Your task to perform on an android device: Add "logitech g pro" to the cart on costco.com Image 0: 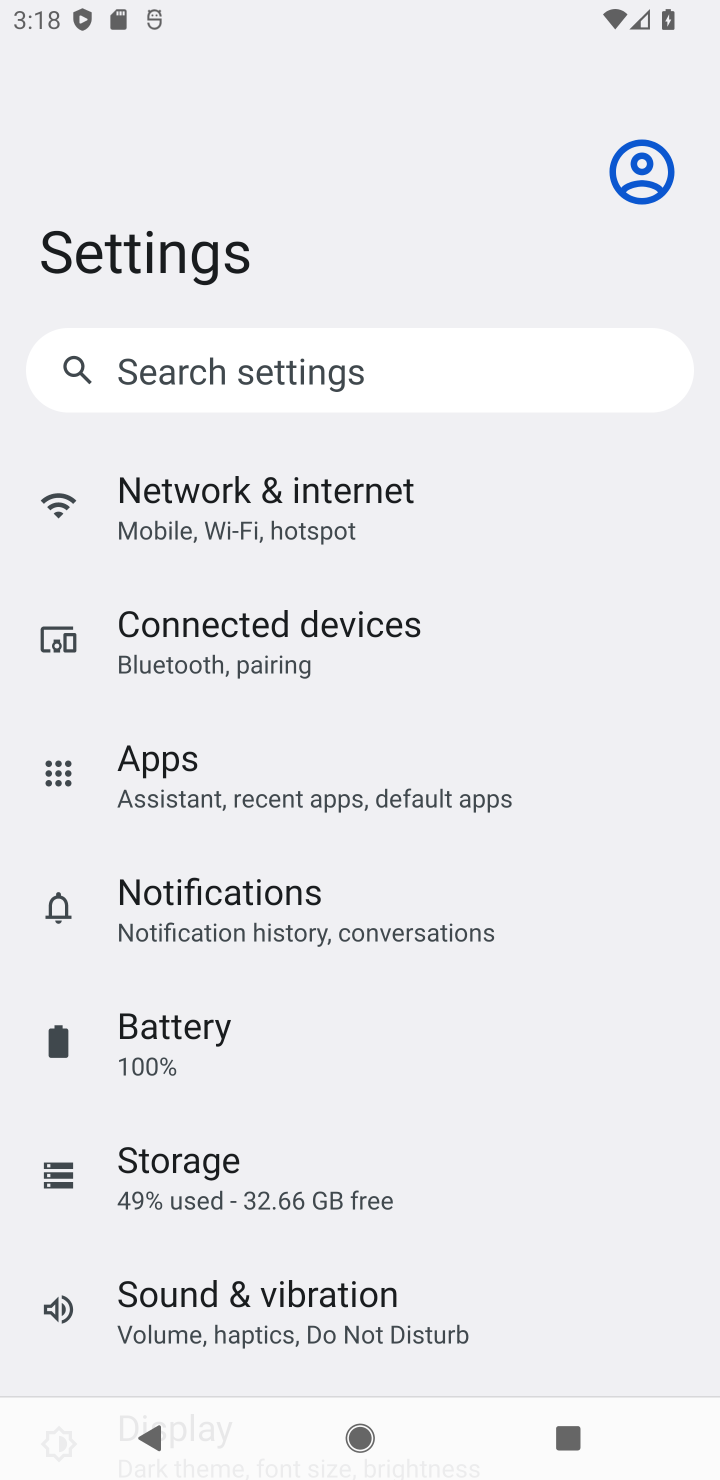
Step 0: press home button
Your task to perform on an android device: Add "logitech g pro" to the cart on costco.com Image 1: 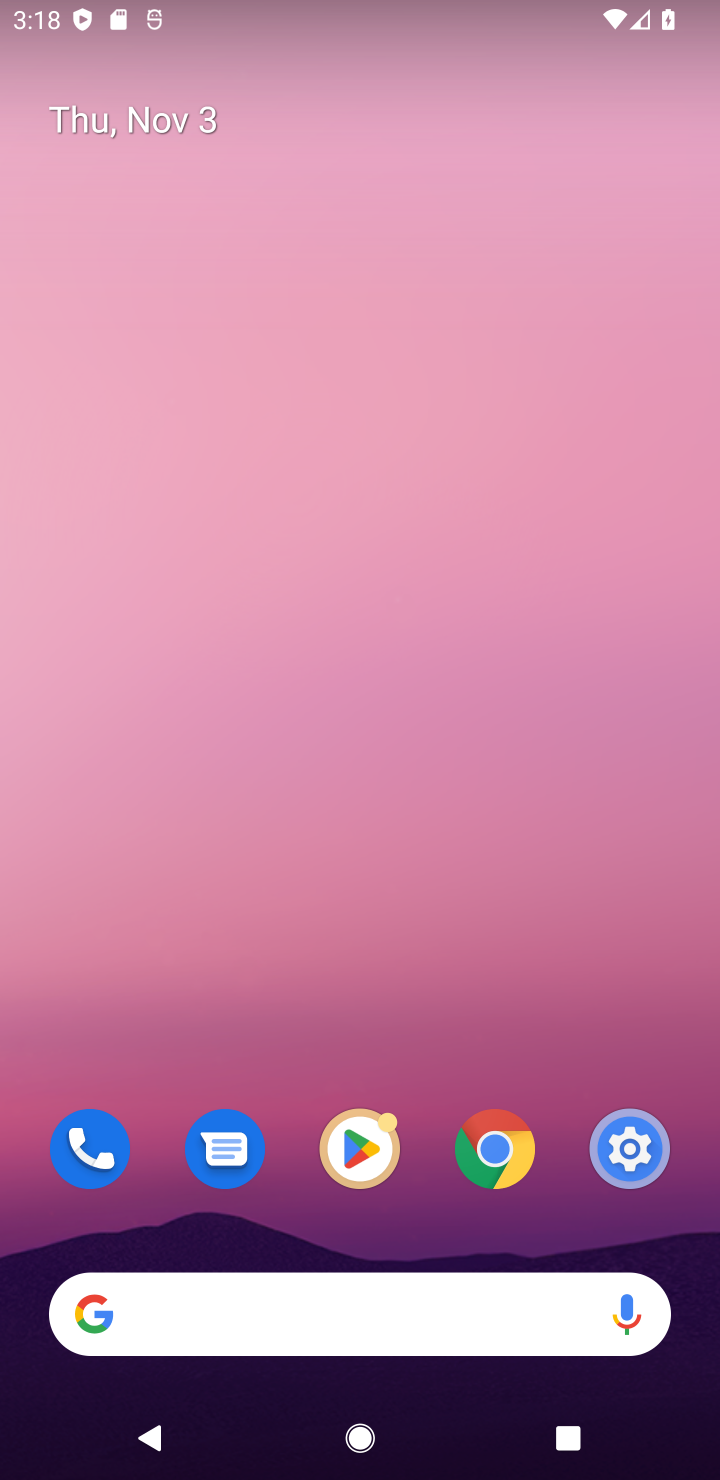
Step 1: click (497, 1138)
Your task to perform on an android device: Add "logitech g pro" to the cart on costco.com Image 2: 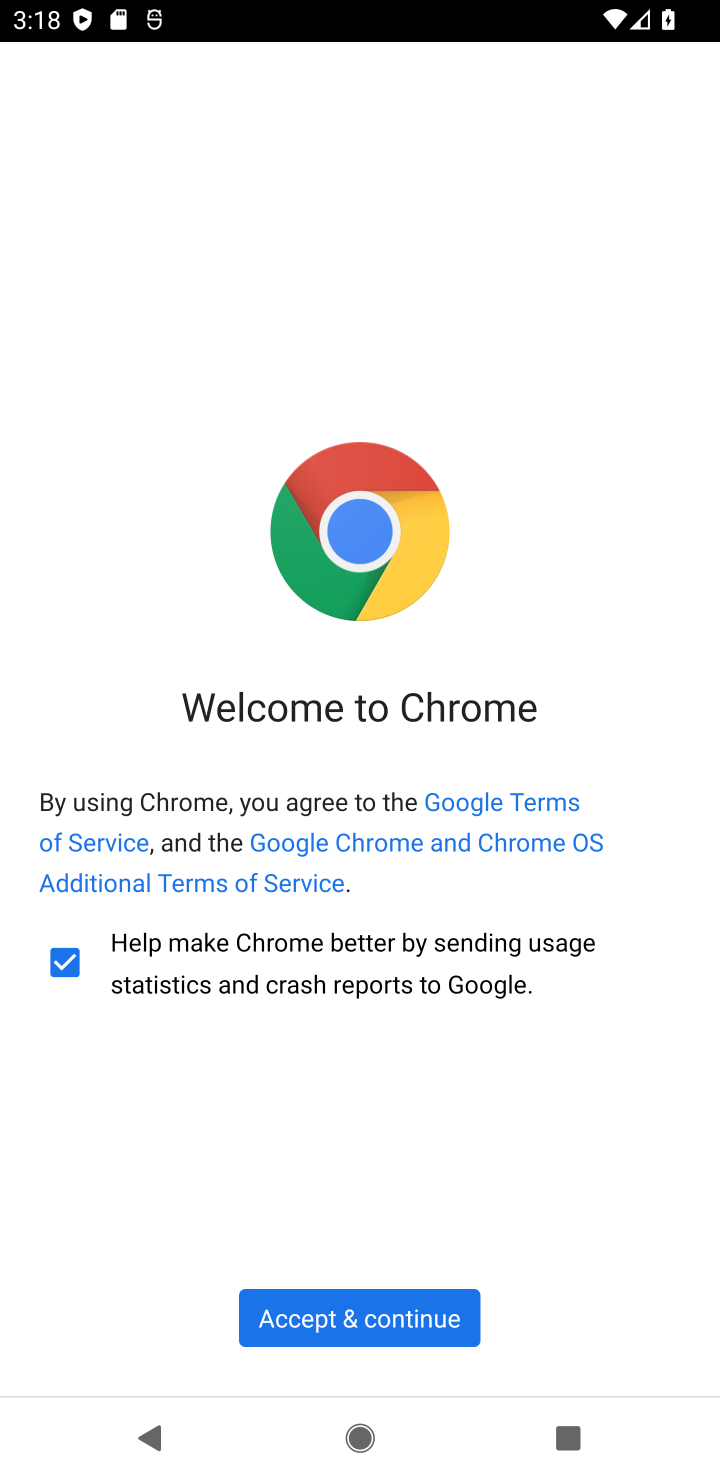
Step 2: click (373, 1305)
Your task to perform on an android device: Add "logitech g pro" to the cart on costco.com Image 3: 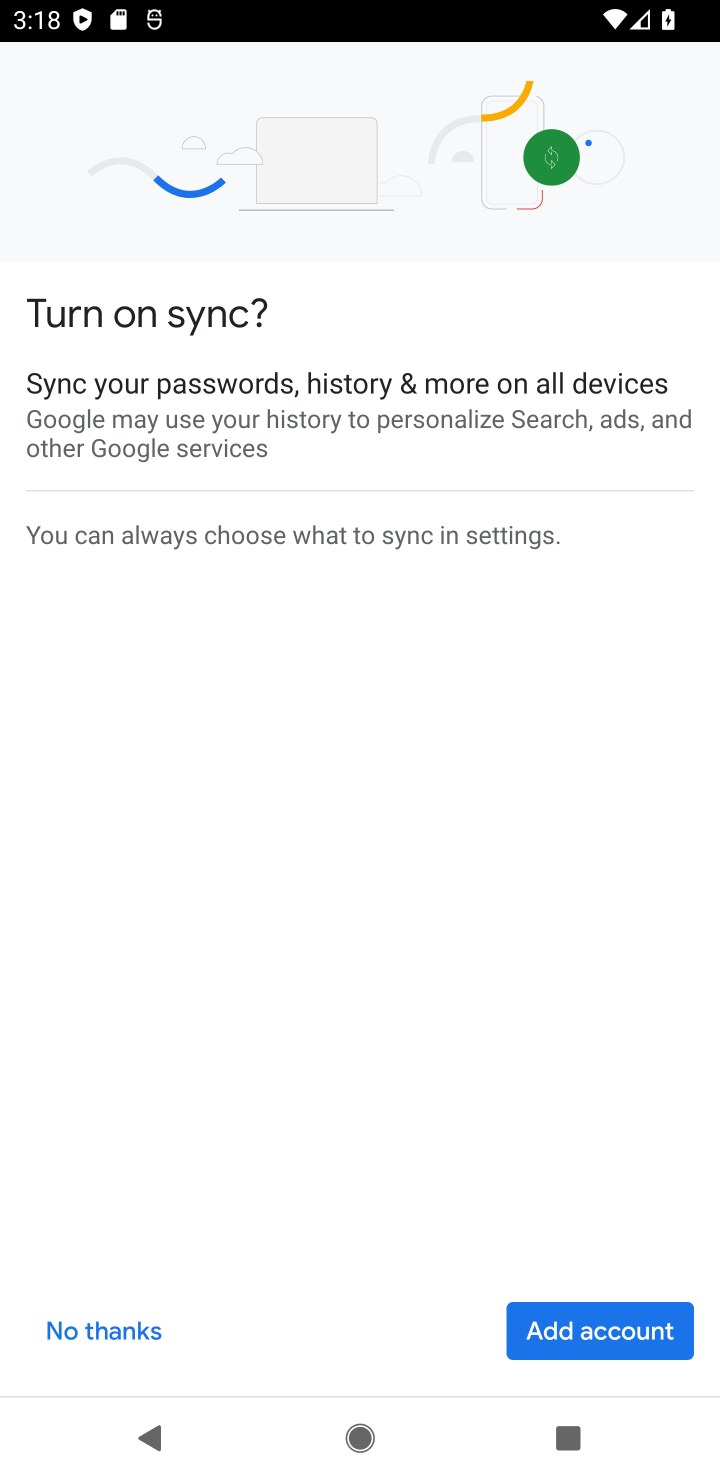
Step 3: click (121, 1324)
Your task to perform on an android device: Add "logitech g pro" to the cart on costco.com Image 4: 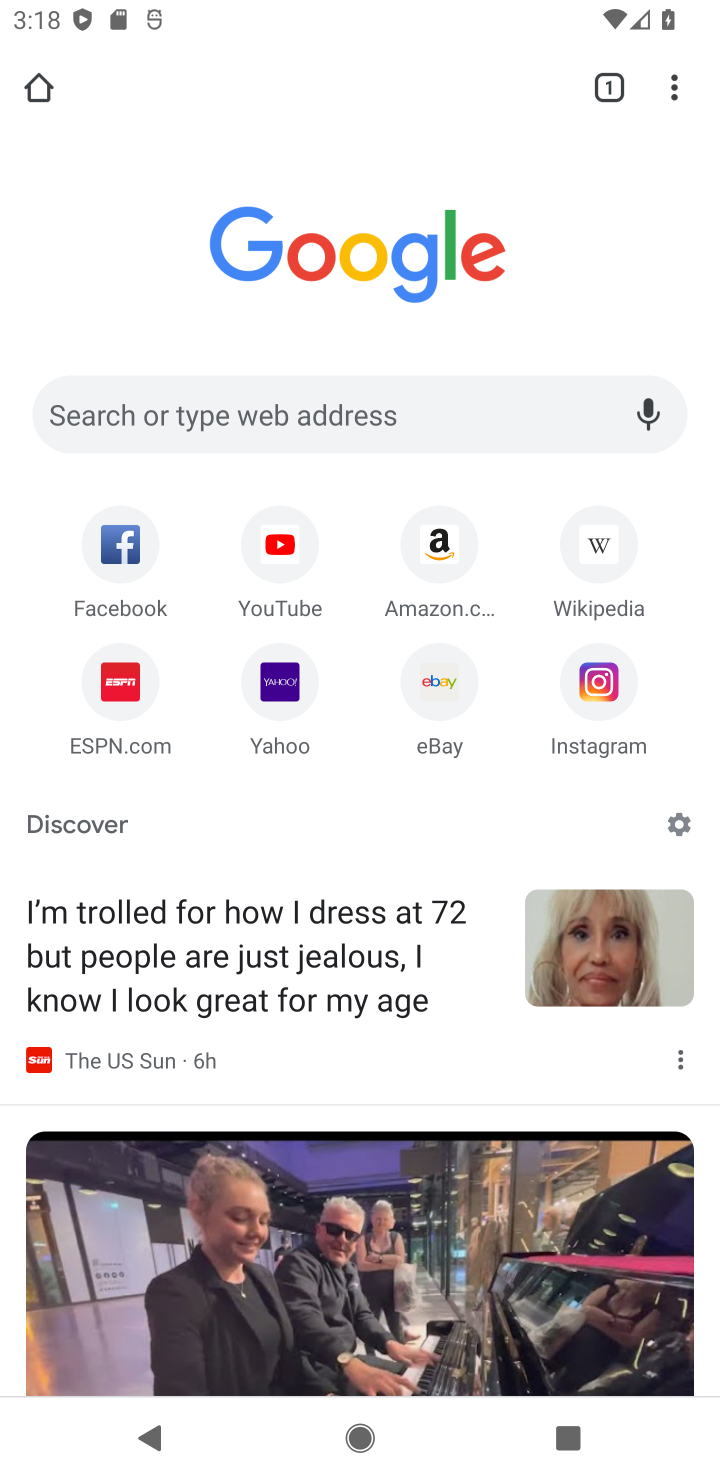
Step 4: click (308, 412)
Your task to perform on an android device: Add "logitech g pro" to the cart on costco.com Image 5: 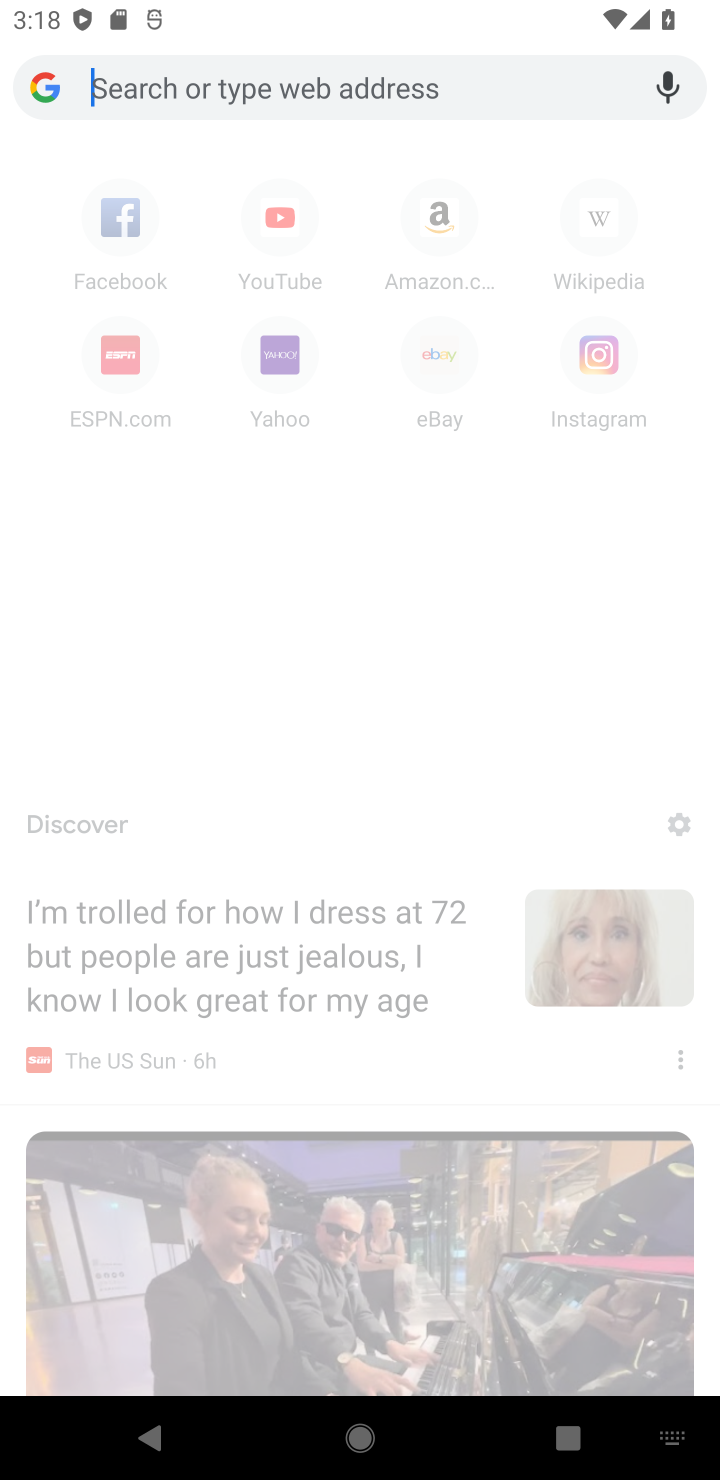
Step 5: type "costco"
Your task to perform on an android device: Add "logitech g pro" to the cart on costco.com Image 6: 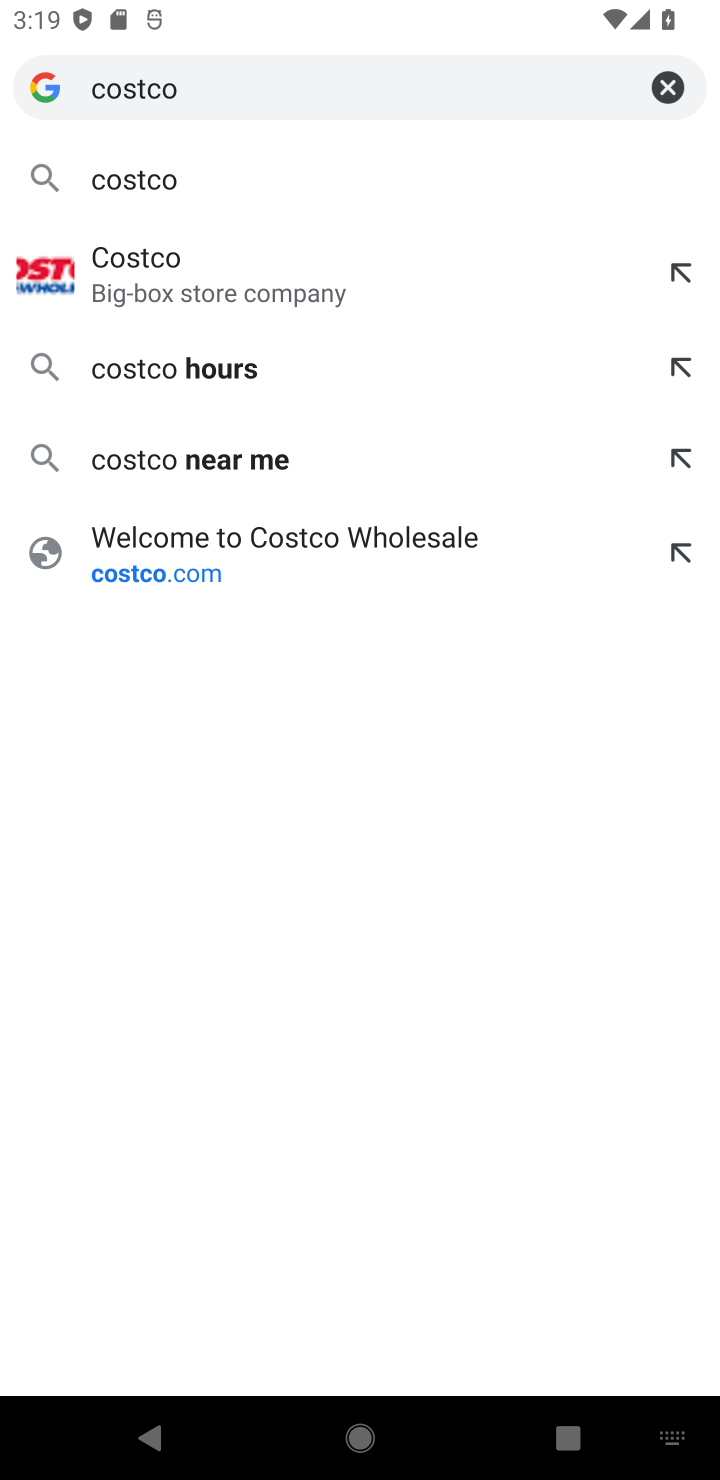
Step 6: click (173, 283)
Your task to perform on an android device: Add "logitech g pro" to the cart on costco.com Image 7: 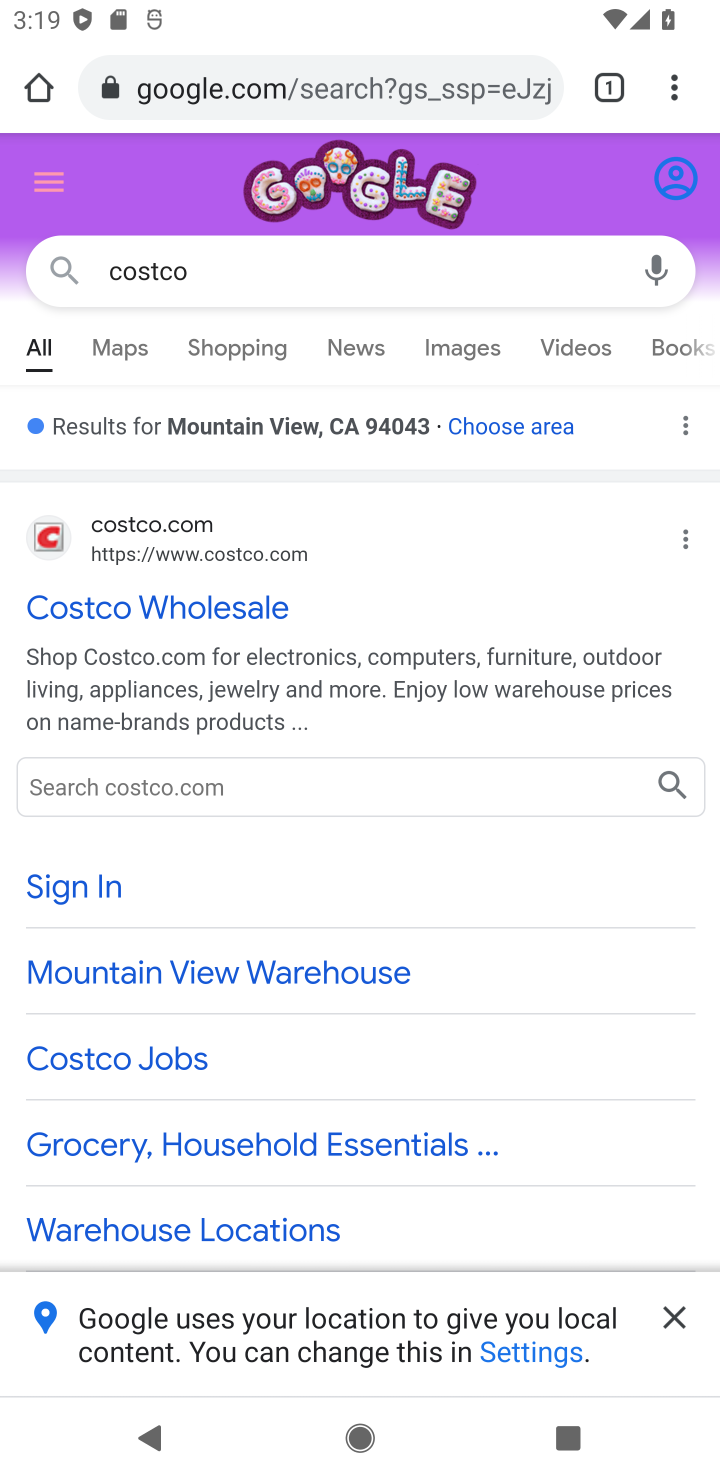
Step 7: click (675, 1310)
Your task to perform on an android device: Add "logitech g pro" to the cart on costco.com Image 8: 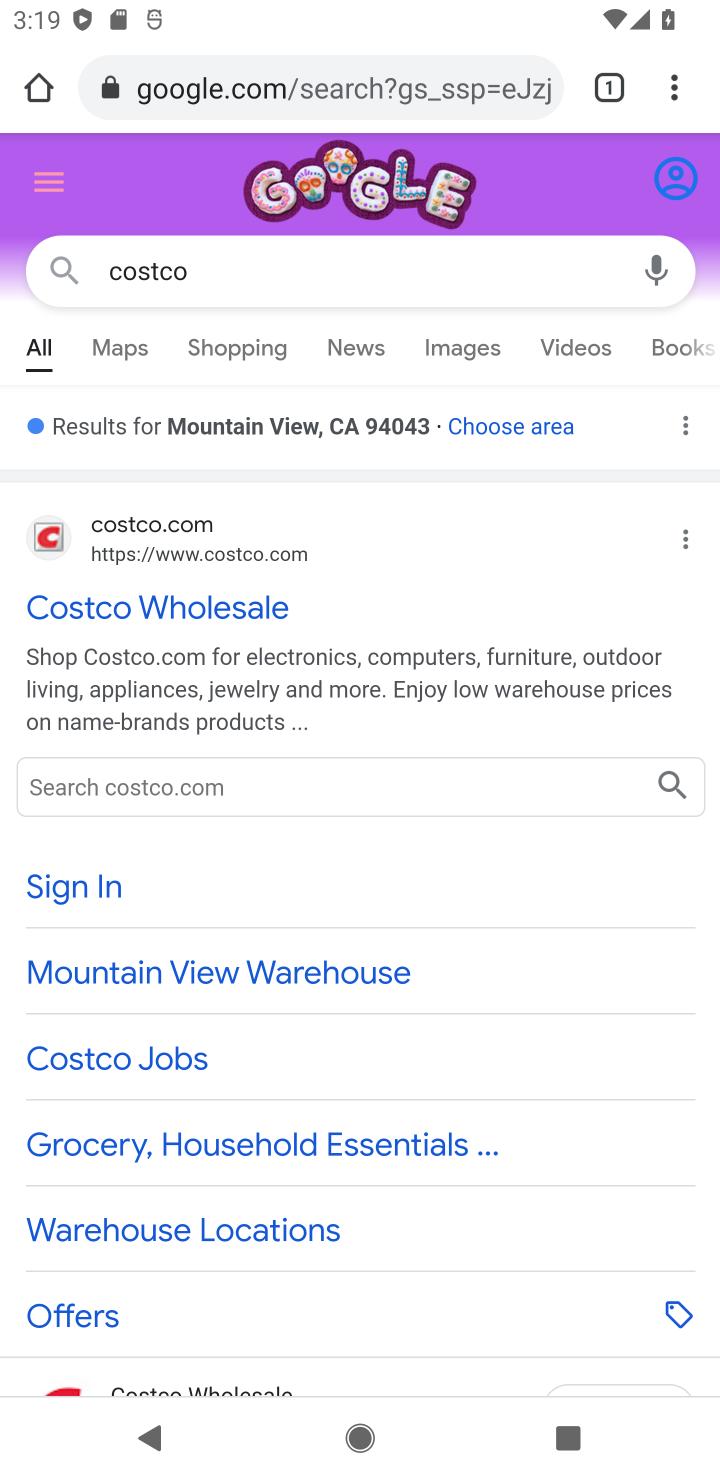
Step 8: click (182, 776)
Your task to perform on an android device: Add "logitech g pro" to the cart on costco.com Image 9: 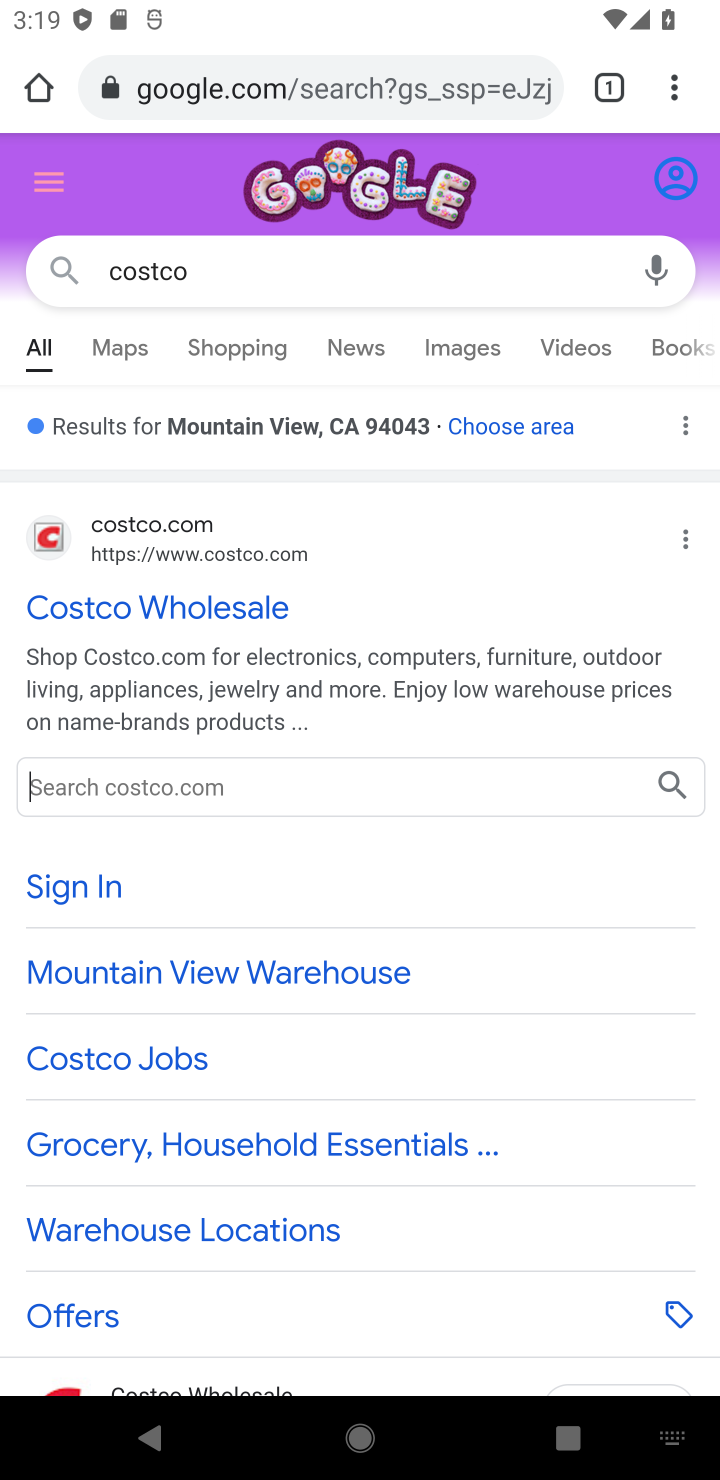
Step 9: type "logitech g pro"
Your task to perform on an android device: Add "logitech g pro" to the cart on costco.com Image 10: 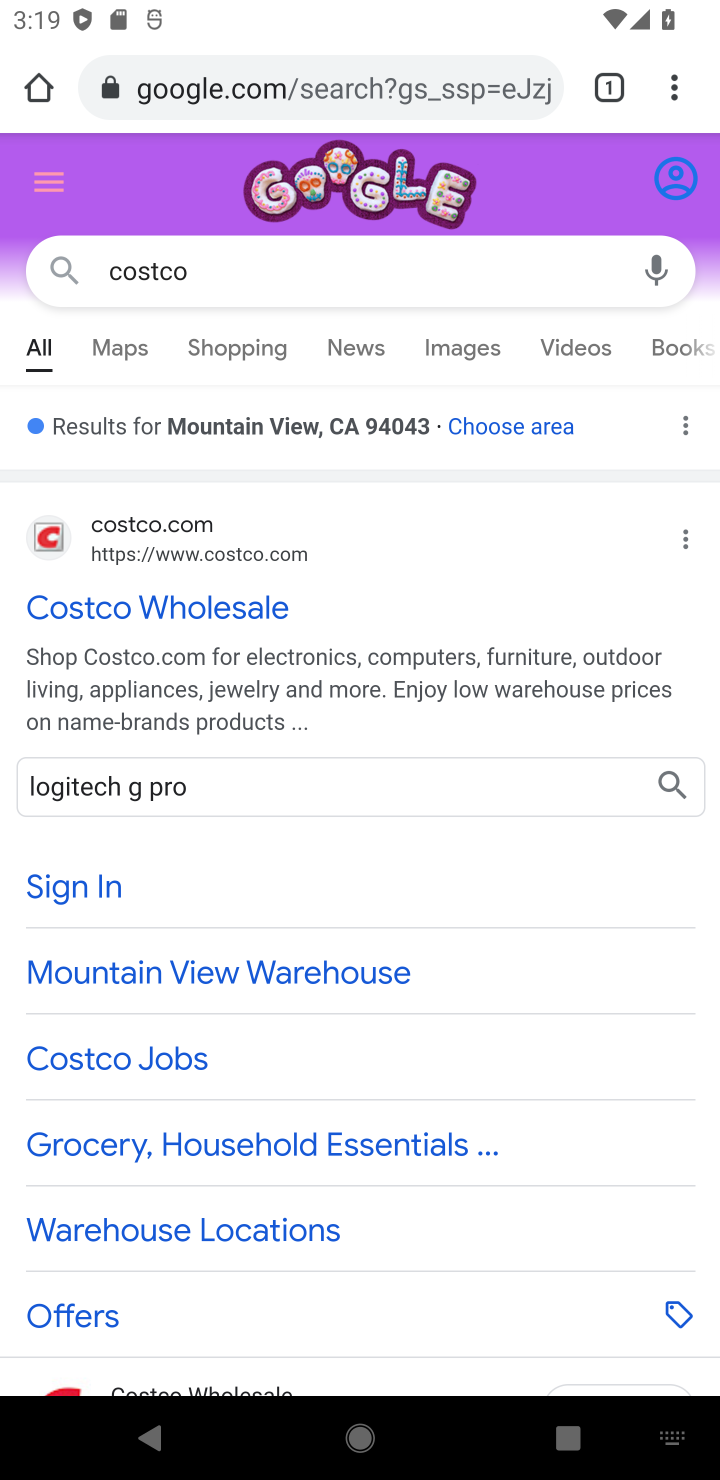
Step 10: click (675, 781)
Your task to perform on an android device: Add "logitech g pro" to the cart on costco.com Image 11: 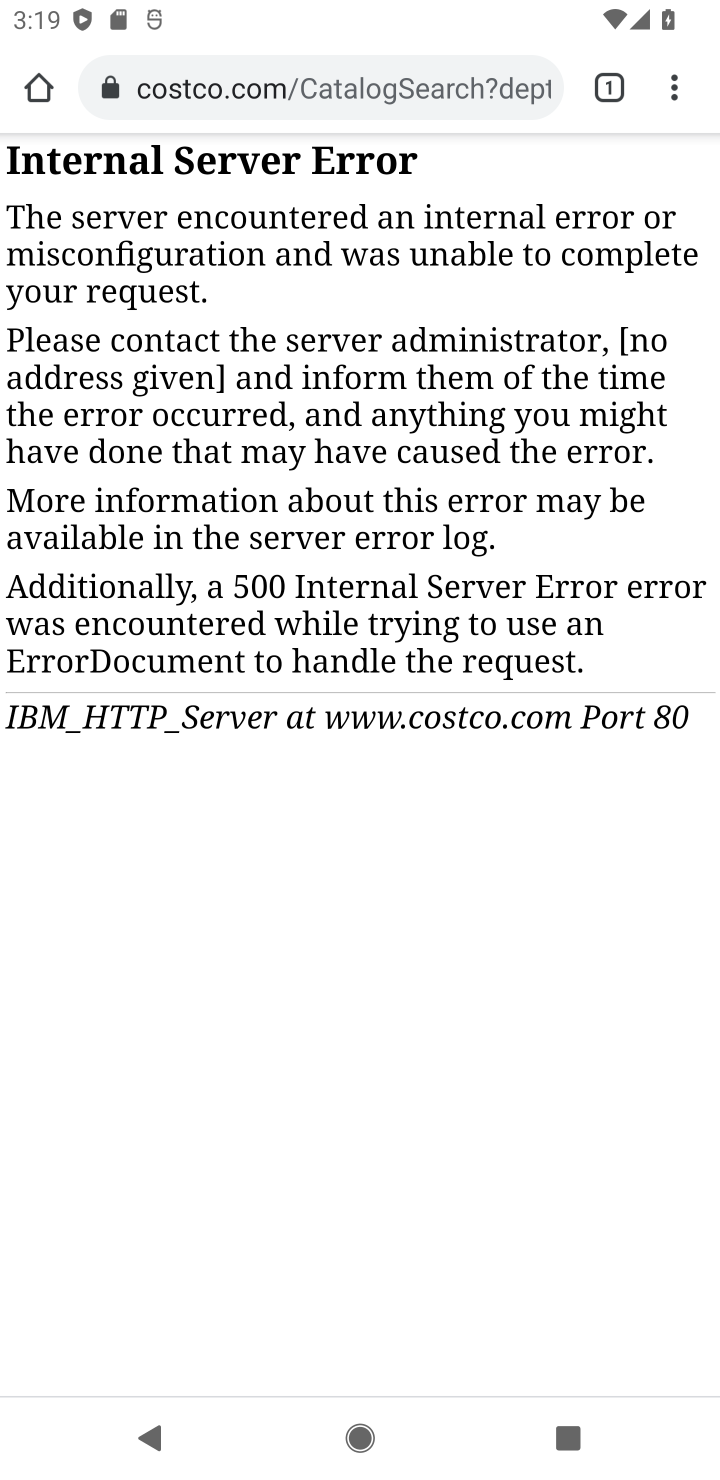
Step 11: press back button
Your task to perform on an android device: Add "logitech g pro" to the cart on costco.com Image 12: 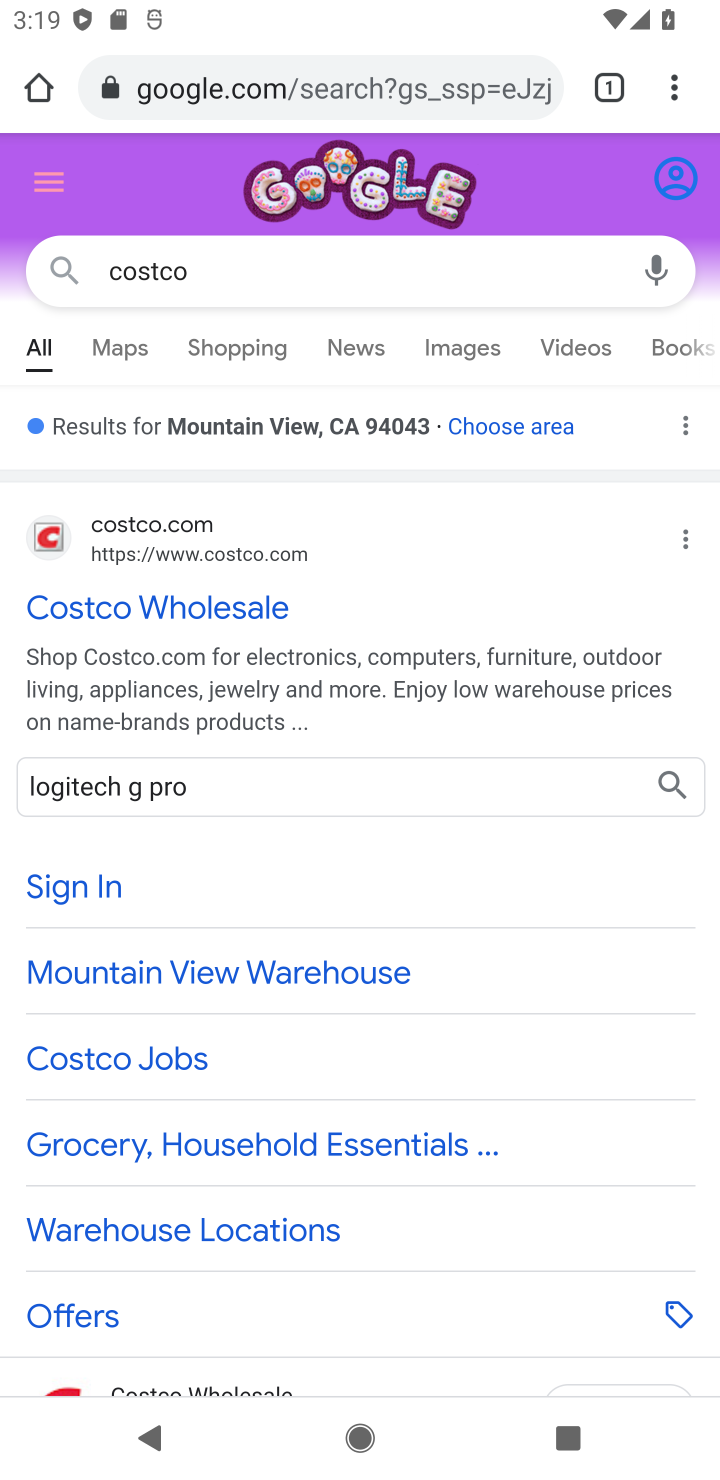
Step 12: click (668, 788)
Your task to perform on an android device: Add "logitech g pro" to the cart on costco.com Image 13: 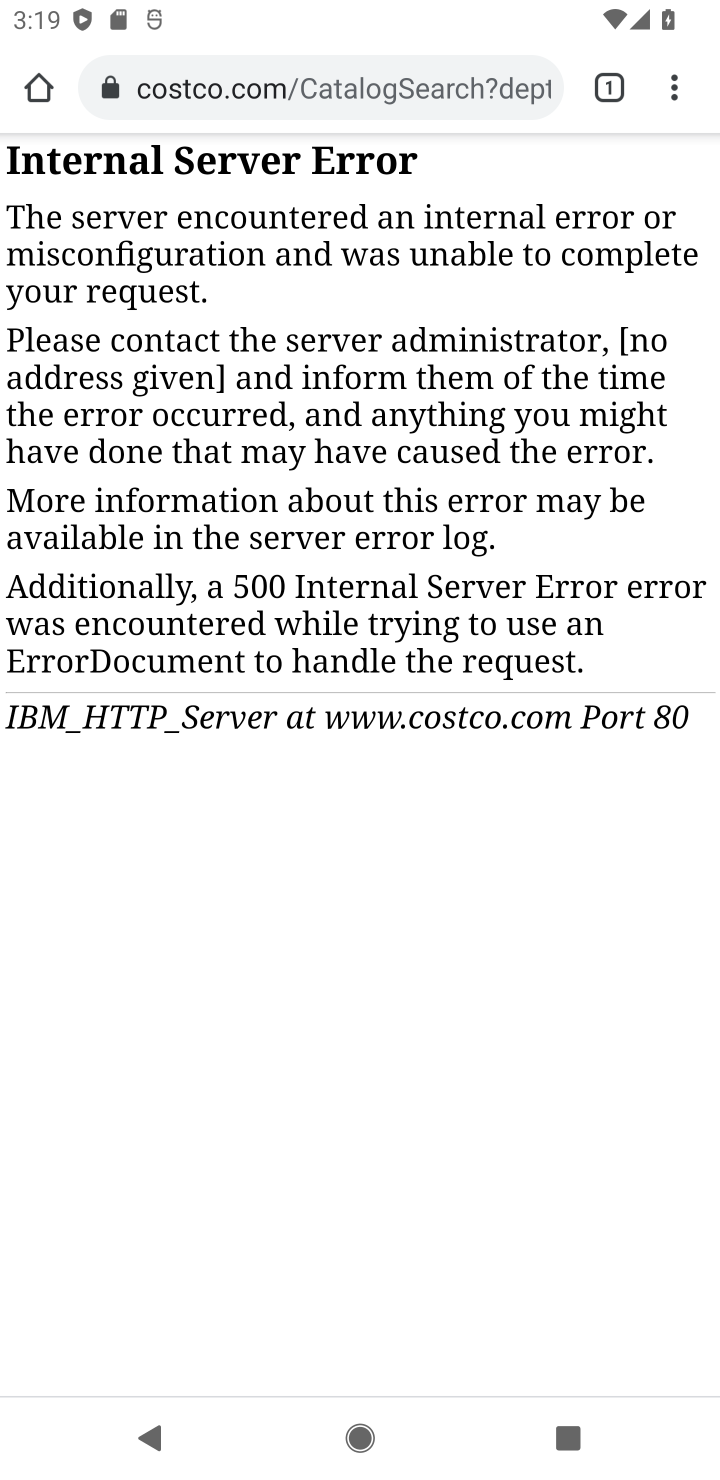
Step 13: press back button
Your task to perform on an android device: Add "logitech g pro" to the cart on costco.com Image 14: 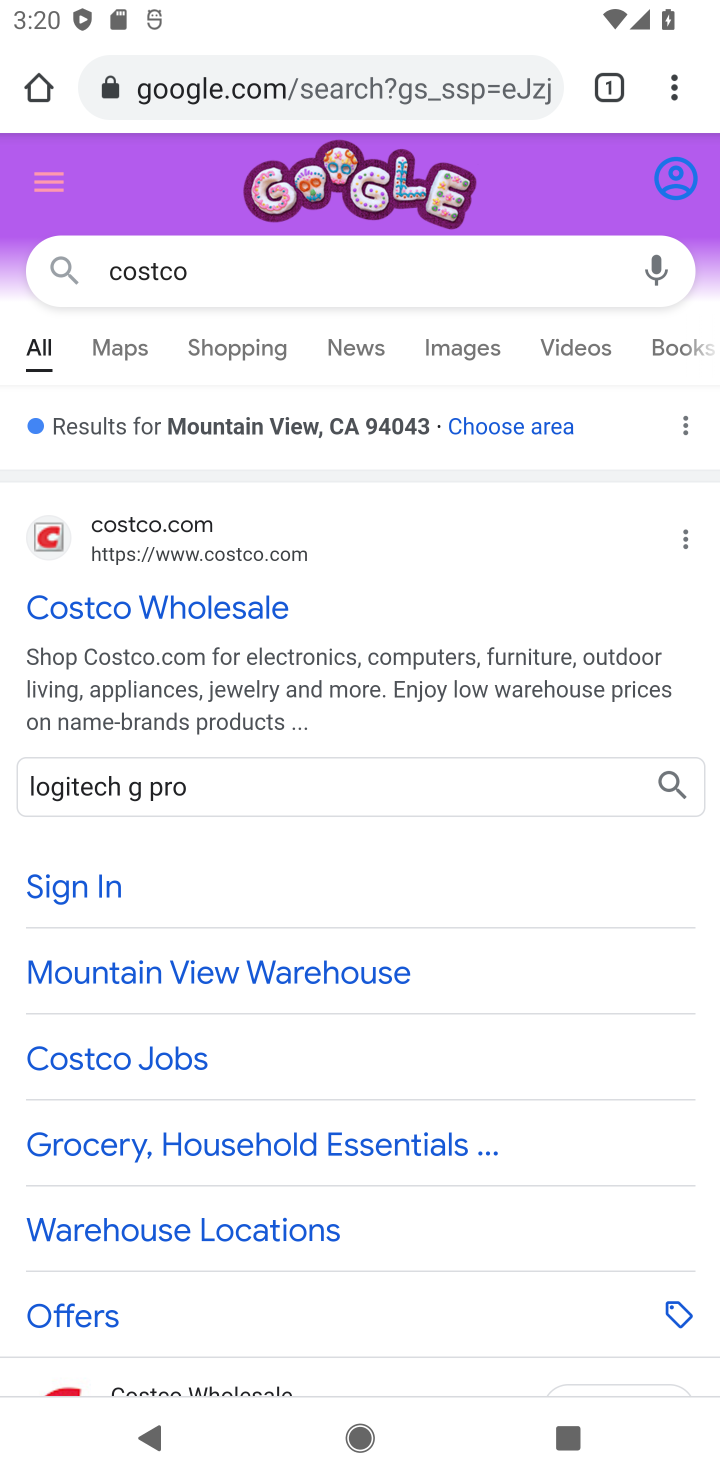
Step 14: click (226, 606)
Your task to perform on an android device: Add "logitech g pro" to the cart on costco.com Image 15: 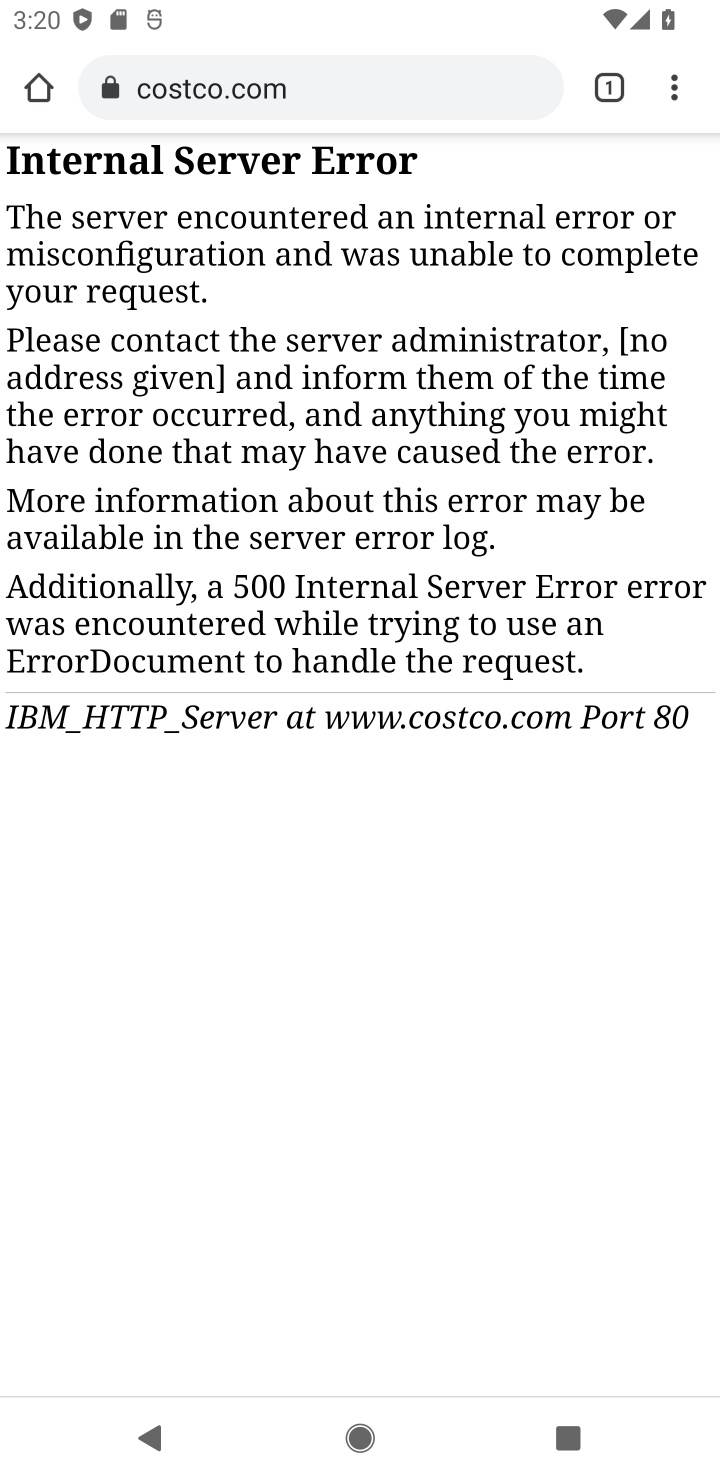
Step 15: task complete